Your task to perform on an android device: Go to ESPN.com Image 0: 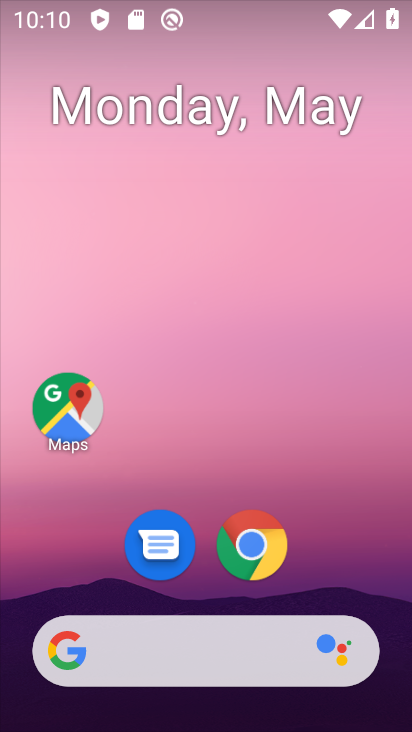
Step 0: click (258, 569)
Your task to perform on an android device: Go to ESPN.com Image 1: 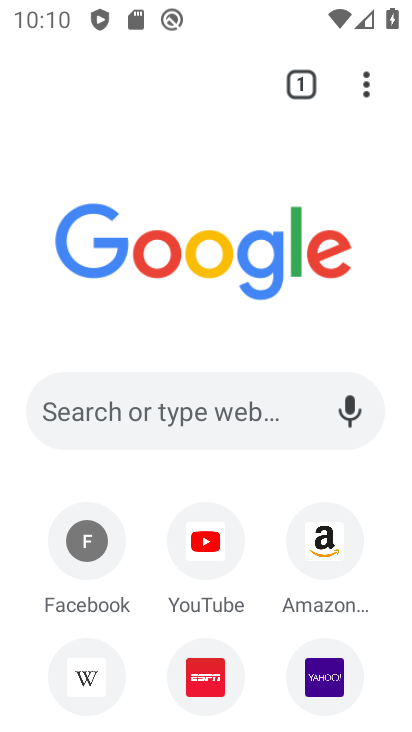
Step 1: click (226, 667)
Your task to perform on an android device: Go to ESPN.com Image 2: 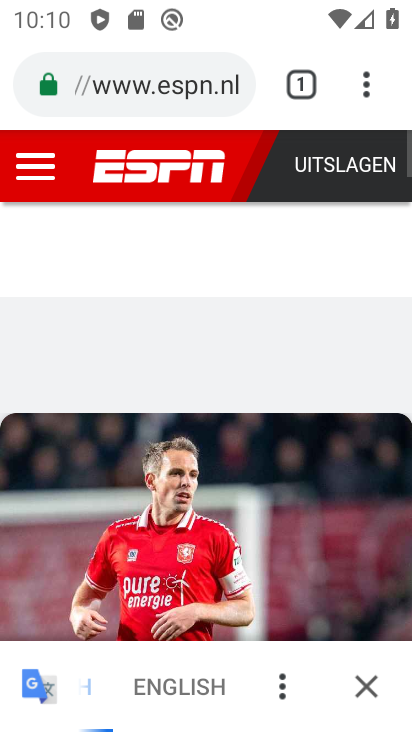
Step 2: task complete